Your task to perform on an android device: open chrome privacy settings Image 0: 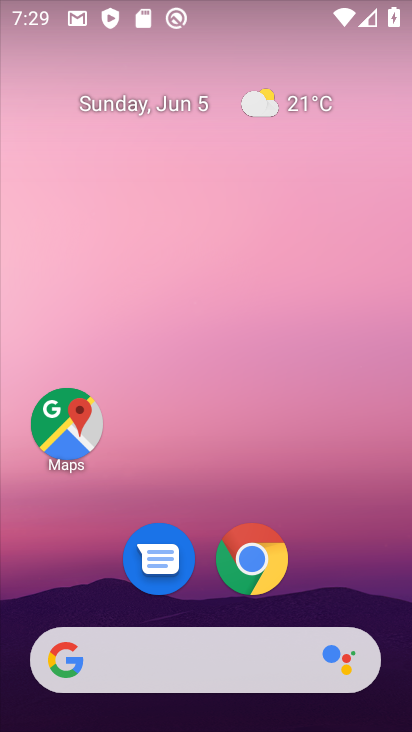
Step 0: click (250, 541)
Your task to perform on an android device: open chrome privacy settings Image 1: 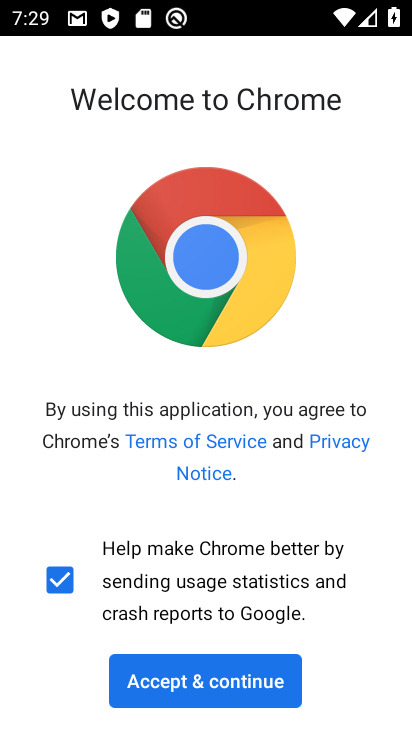
Step 1: click (242, 691)
Your task to perform on an android device: open chrome privacy settings Image 2: 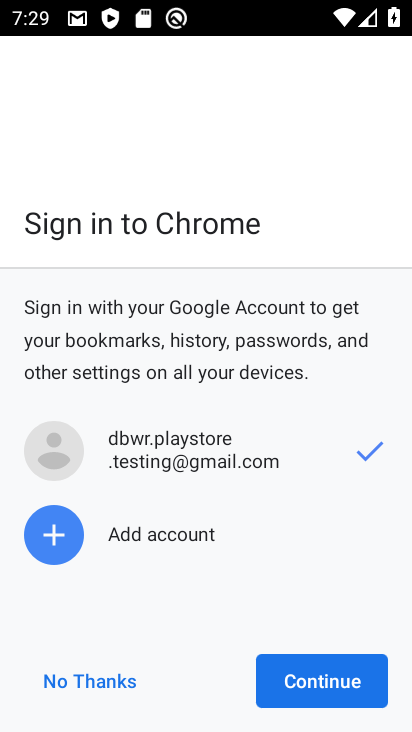
Step 2: click (288, 682)
Your task to perform on an android device: open chrome privacy settings Image 3: 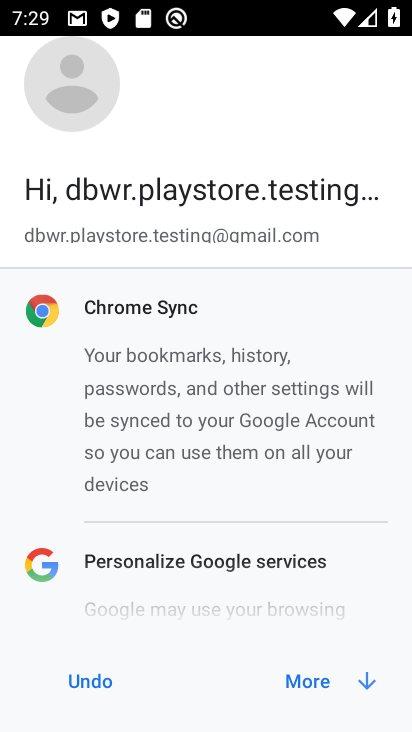
Step 3: click (308, 680)
Your task to perform on an android device: open chrome privacy settings Image 4: 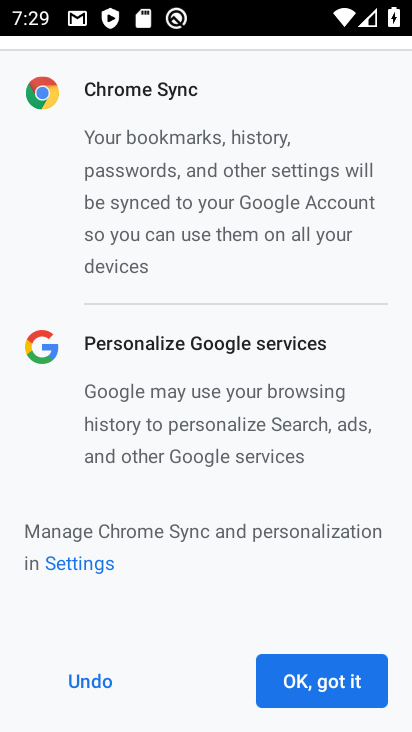
Step 4: click (299, 680)
Your task to perform on an android device: open chrome privacy settings Image 5: 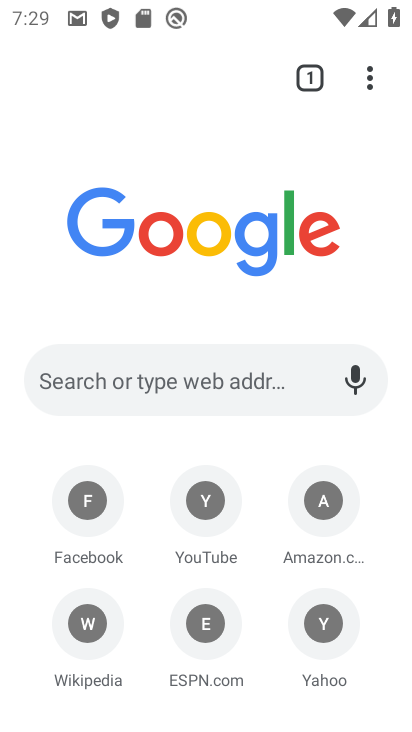
Step 5: drag from (371, 76) to (72, 640)
Your task to perform on an android device: open chrome privacy settings Image 6: 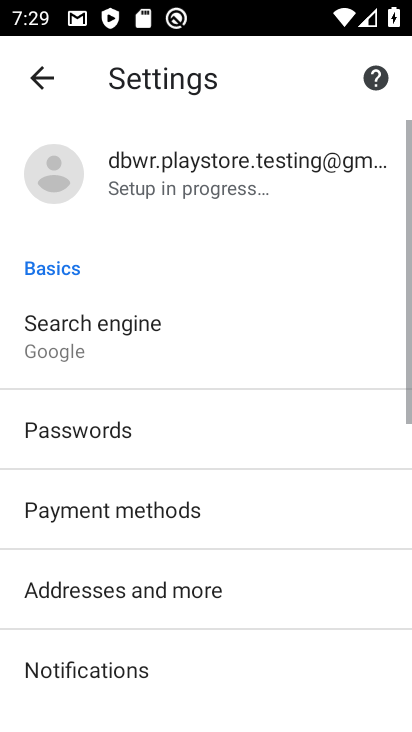
Step 6: drag from (71, 640) to (1, 270)
Your task to perform on an android device: open chrome privacy settings Image 7: 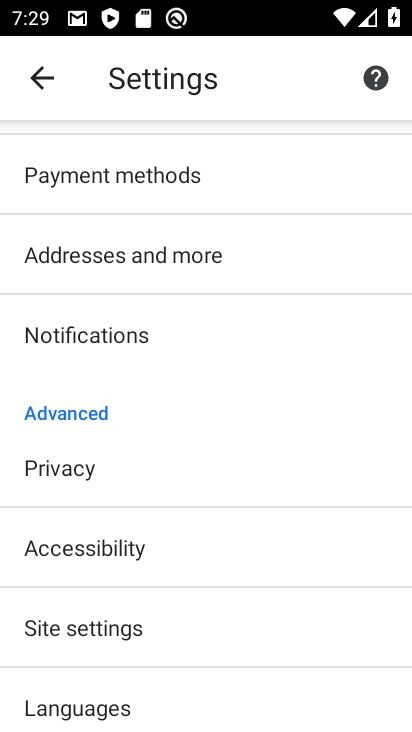
Step 7: click (78, 464)
Your task to perform on an android device: open chrome privacy settings Image 8: 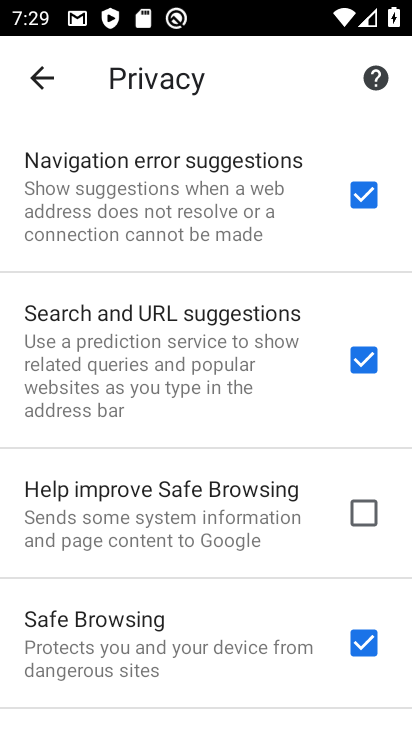
Step 8: task complete